Your task to perform on an android device: open a new tab in the chrome app Image 0: 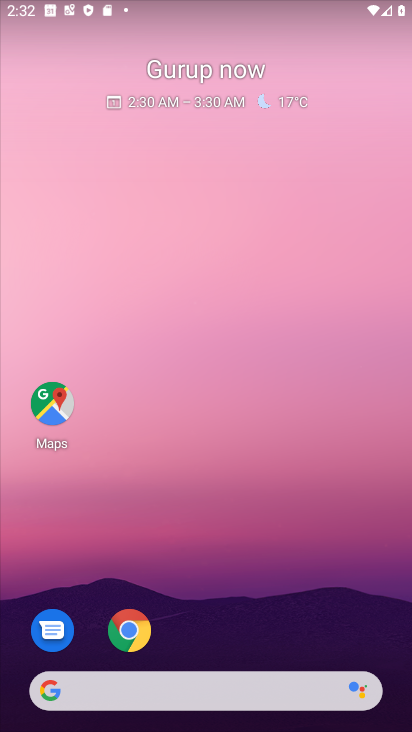
Step 0: drag from (252, 613) to (252, 74)
Your task to perform on an android device: open a new tab in the chrome app Image 1: 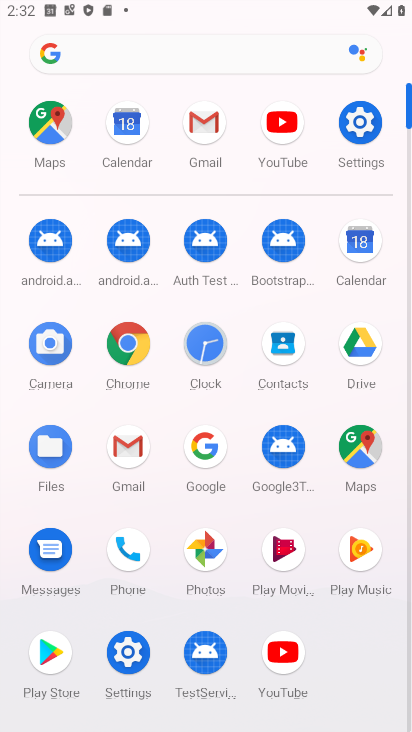
Step 1: click (131, 340)
Your task to perform on an android device: open a new tab in the chrome app Image 2: 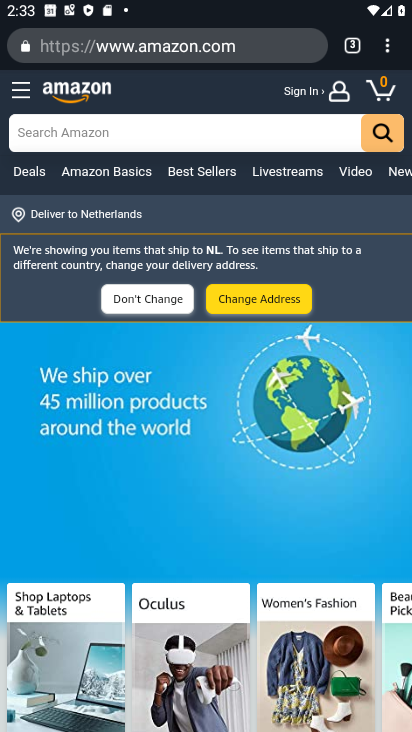
Step 2: click (387, 49)
Your task to perform on an android device: open a new tab in the chrome app Image 3: 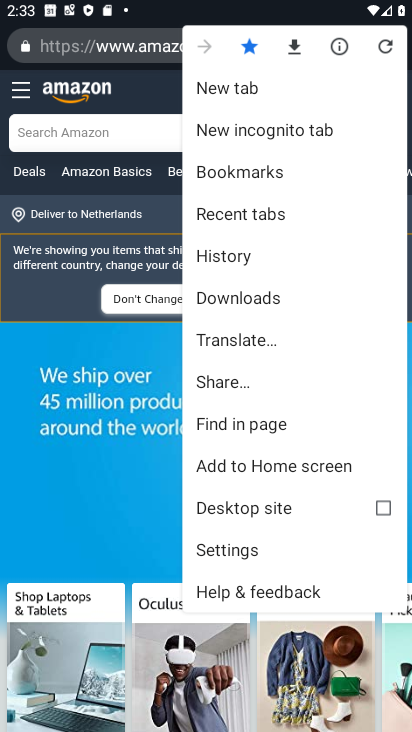
Step 3: click (326, 81)
Your task to perform on an android device: open a new tab in the chrome app Image 4: 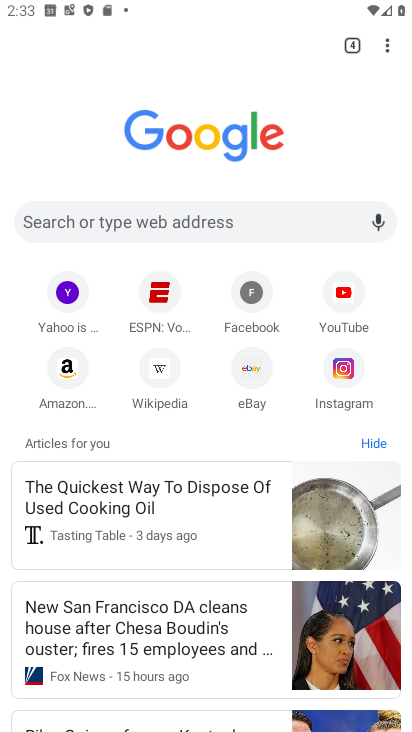
Step 4: task complete